Your task to perform on an android device: turn on javascript in the chrome app Image 0: 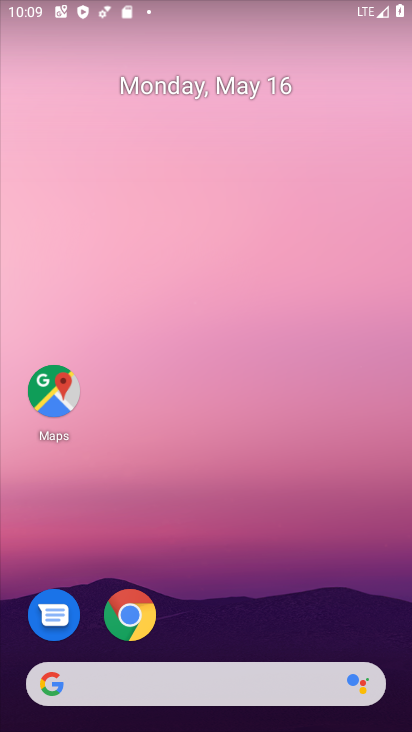
Step 0: drag from (225, 600) to (147, 171)
Your task to perform on an android device: turn on javascript in the chrome app Image 1: 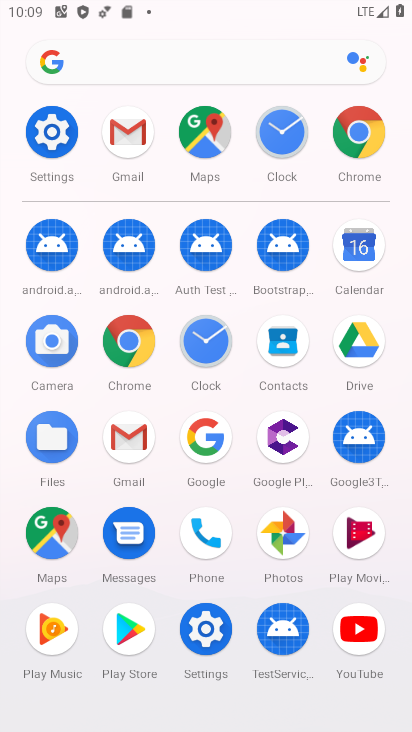
Step 1: click (377, 125)
Your task to perform on an android device: turn on javascript in the chrome app Image 2: 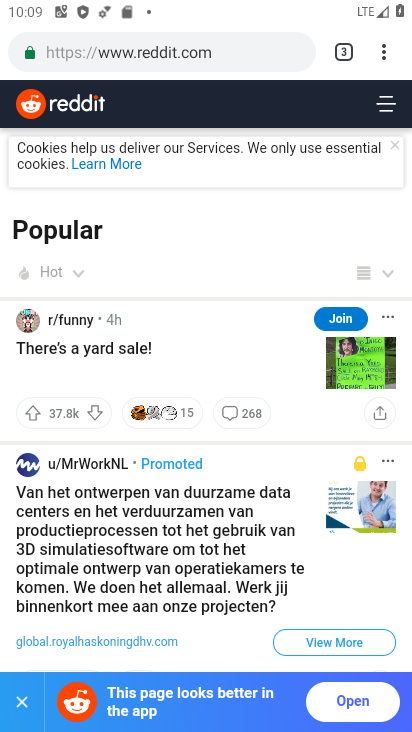
Step 2: click (380, 58)
Your task to perform on an android device: turn on javascript in the chrome app Image 3: 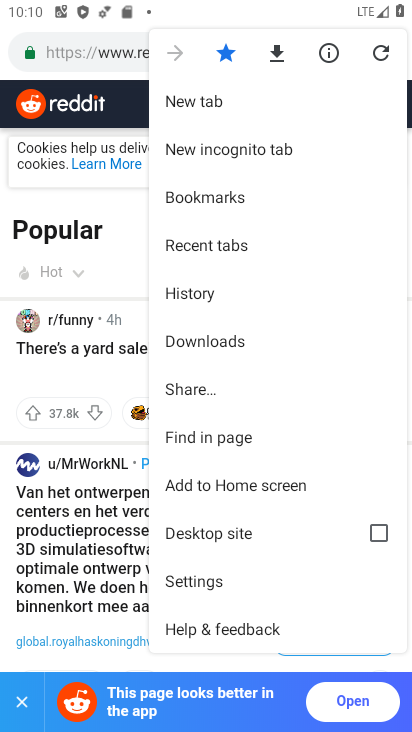
Step 3: click (240, 586)
Your task to perform on an android device: turn on javascript in the chrome app Image 4: 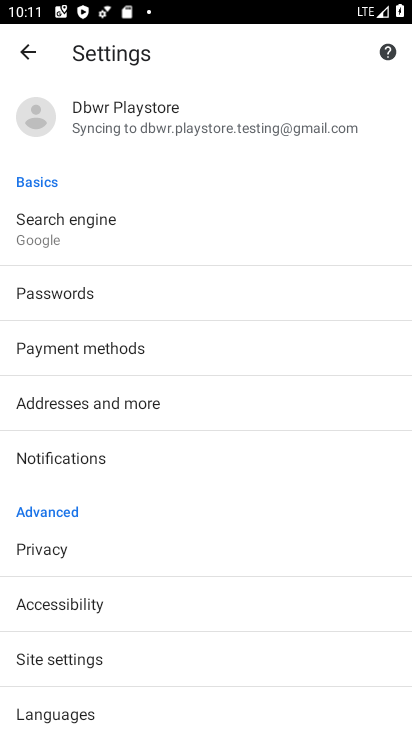
Step 4: click (97, 658)
Your task to perform on an android device: turn on javascript in the chrome app Image 5: 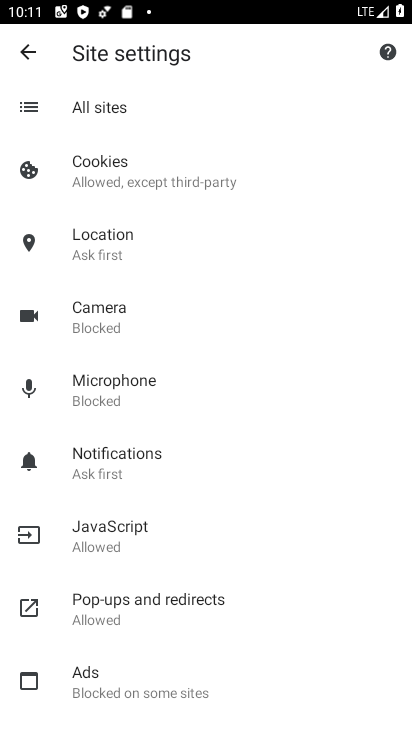
Step 5: click (164, 535)
Your task to perform on an android device: turn on javascript in the chrome app Image 6: 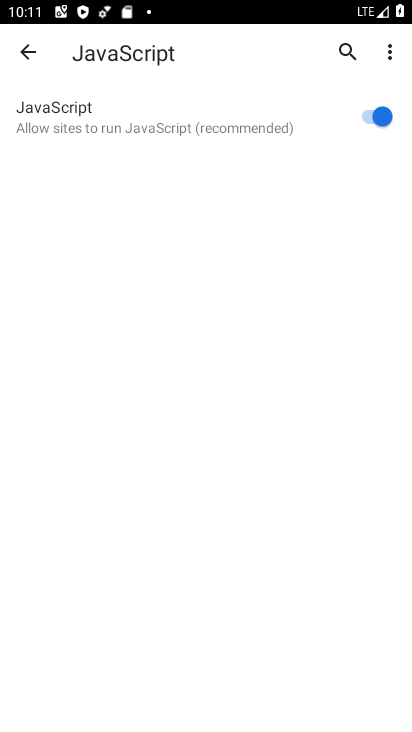
Step 6: task complete